Your task to perform on an android device: Open the stopwatch Image 0: 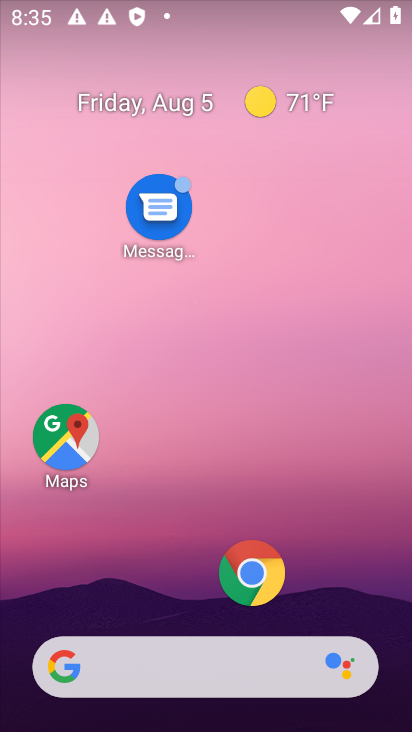
Step 0: press home button
Your task to perform on an android device: Open the stopwatch Image 1: 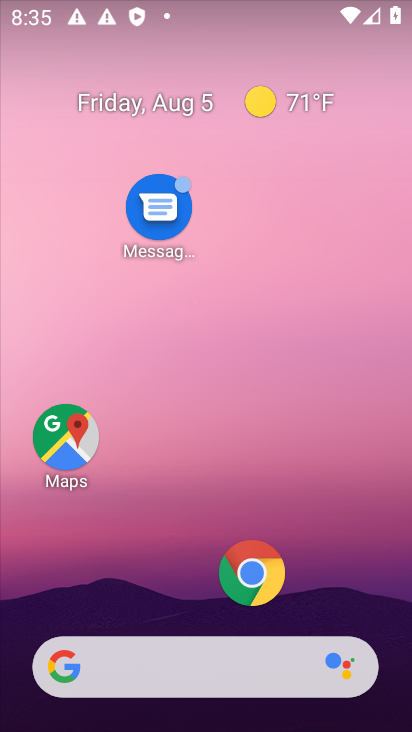
Step 1: drag from (200, 609) to (243, 75)
Your task to perform on an android device: Open the stopwatch Image 2: 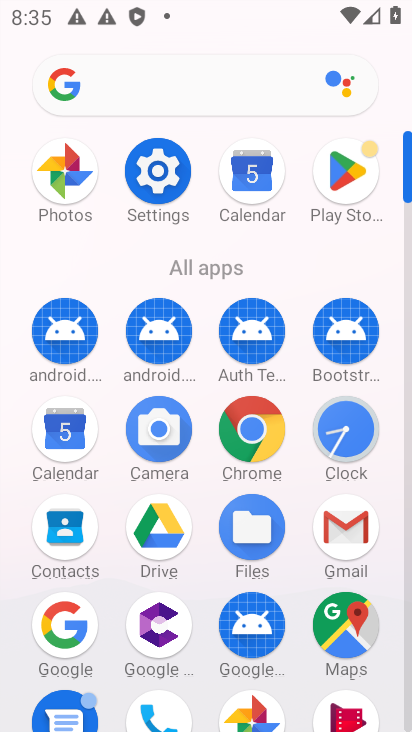
Step 2: drag from (201, 581) to (210, 133)
Your task to perform on an android device: Open the stopwatch Image 3: 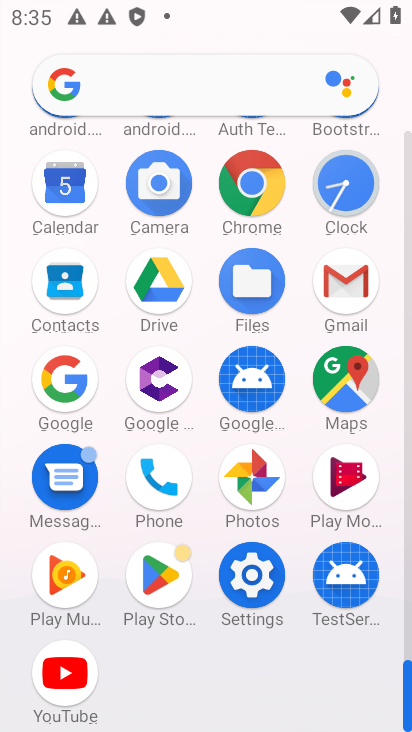
Step 3: click (340, 174)
Your task to perform on an android device: Open the stopwatch Image 4: 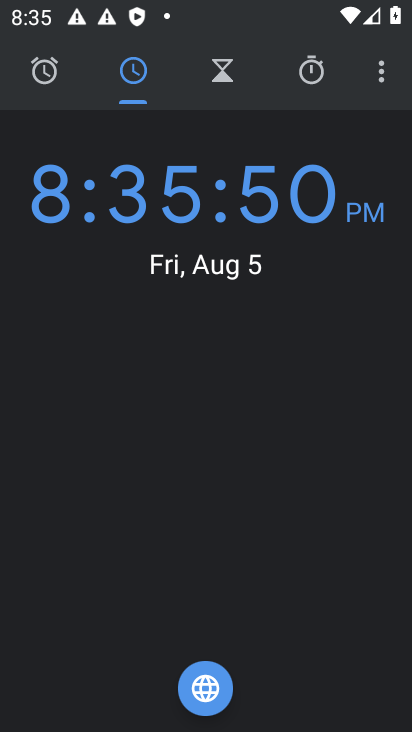
Step 4: click (308, 69)
Your task to perform on an android device: Open the stopwatch Image 5: 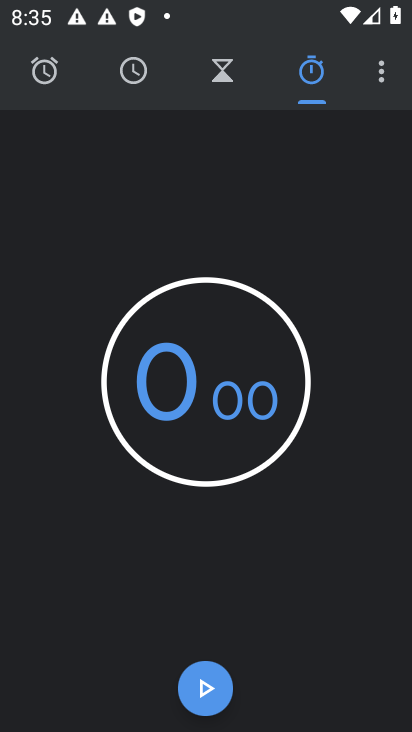
Step 5: click (199, 681)
Your task to perform on an android device: Open the stopwatch Image 6: 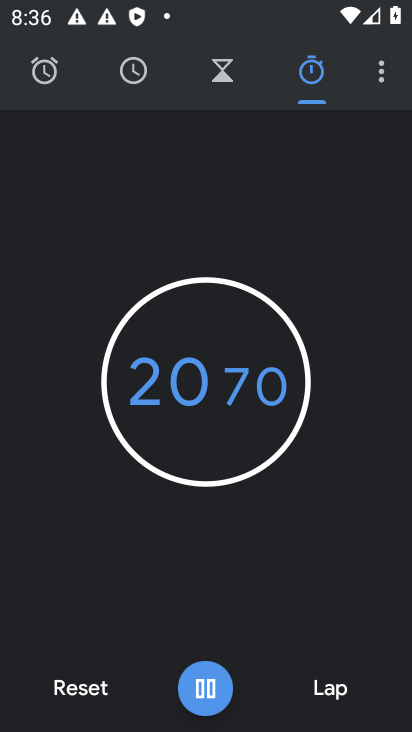
Step 6: task complete